Your task to perform on an android device: turn off wifi Image 0: 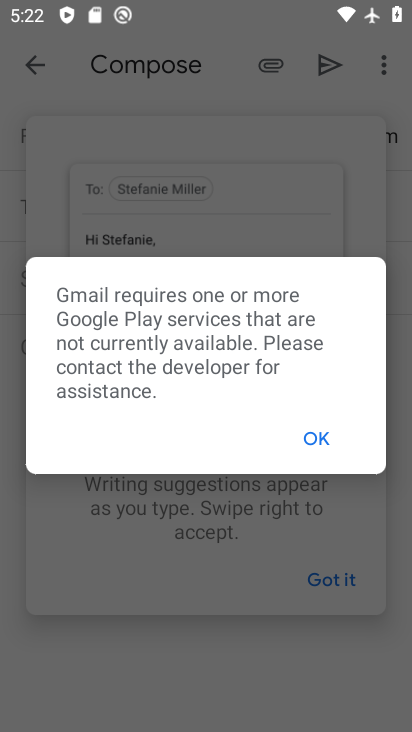
Step 0: press home button
Your task to perform on an android device: turn off wifi Image 1: 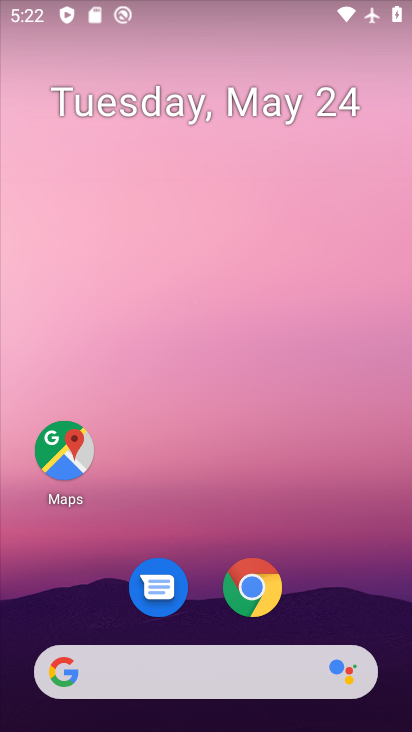
Step 1: drag from (347, 587) to (231, 52)
Your task to perform on an android device: turn off wifi Image 2: 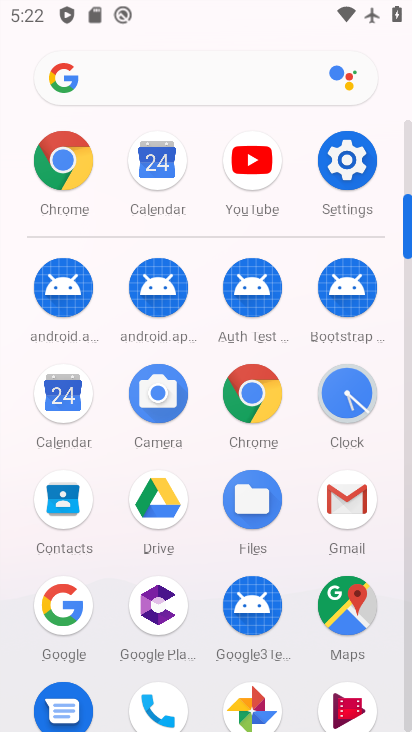
Step 2: click (347, 174)
Your task to perform on an android device: turn off wifi Image 3: 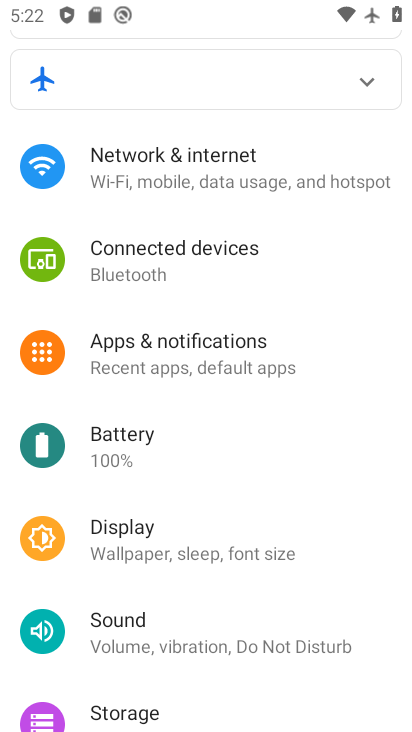
Step 3: click (244, 174)
Your task to perform on an android device: turn off wifi Image 4: 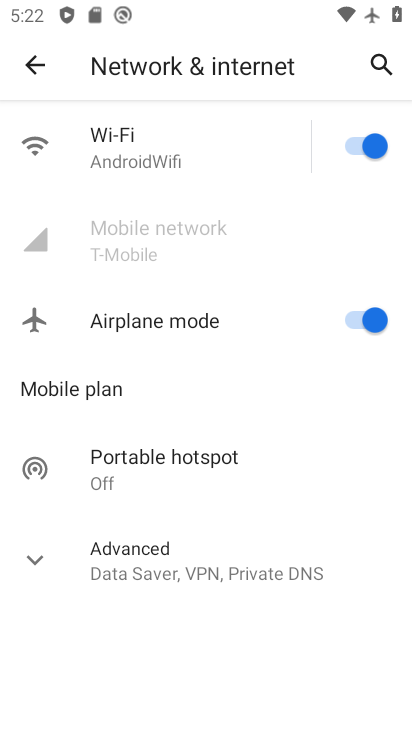
Step 4: click (385, 144)
Your task to perform on an android device: turn off wifi Image 5: 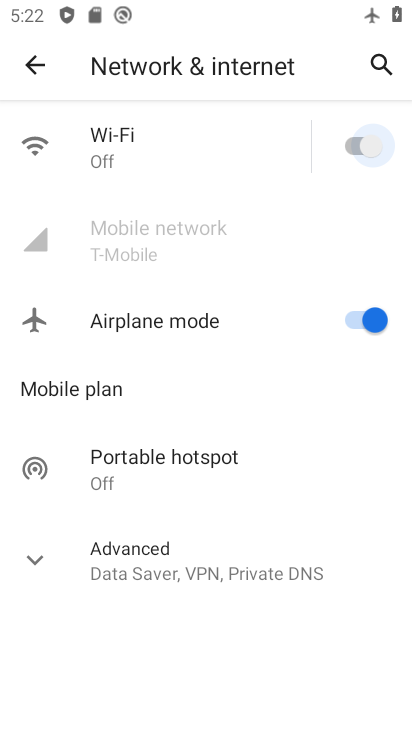
Step 5: task complete